Your task to perform on an android device: Open calendar and show me the third week of next month Image 0: 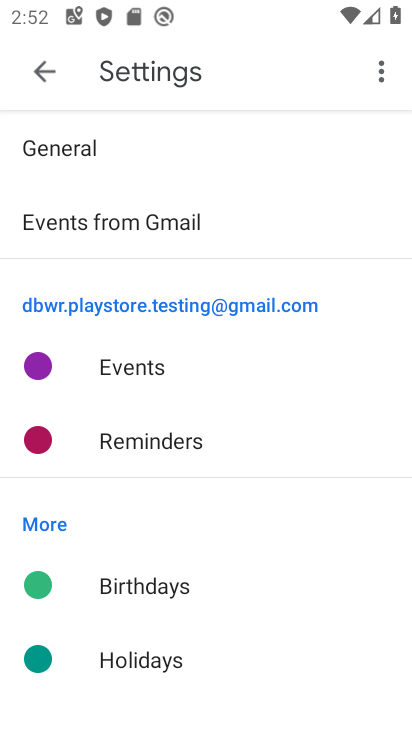
Step 0: press back button
Your task to perform on an android device: Open calendar and show me the third week of next month Image 1: 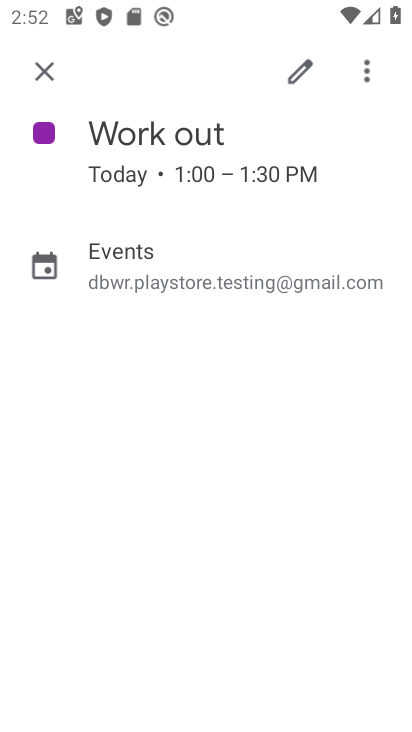
Step 1: click (42, 65)
Your task to perform on an android device: Open calendar and show me the third week of next month Image 2: 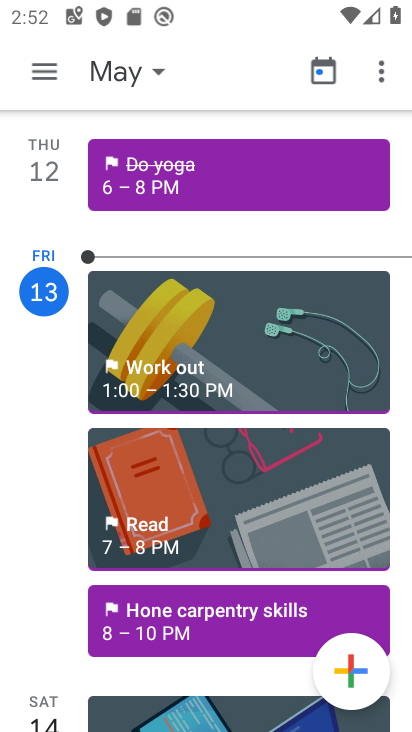
Step 2: click (144, 65)
Your task to perform on an android device: Open calendar and show me the third week of next month Image 3: 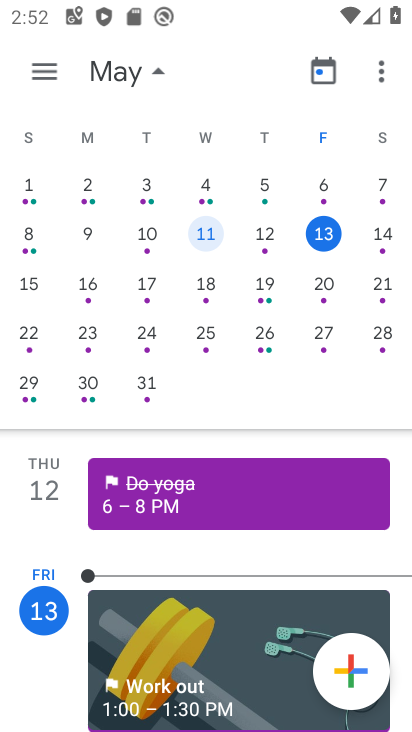
Step 3: drag from (392, 290) to (17, 274)
Your task to perform on an android device: Open calendar and show me the third week of next month Image 4: 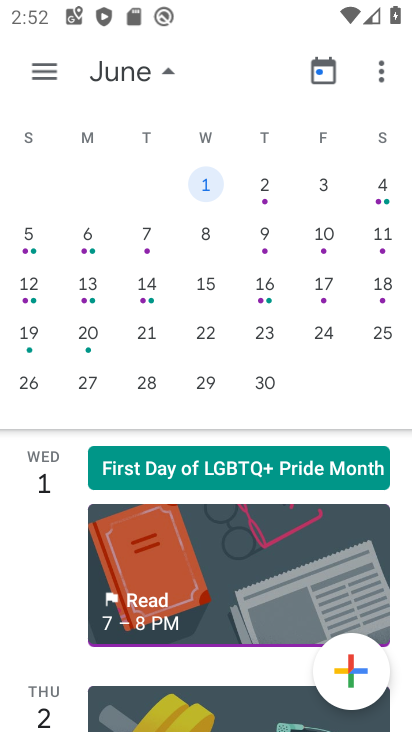
Step 4: click (83, 283)
Your task to perform on an android device: Open calendar and show me the third week of next month Image 5: 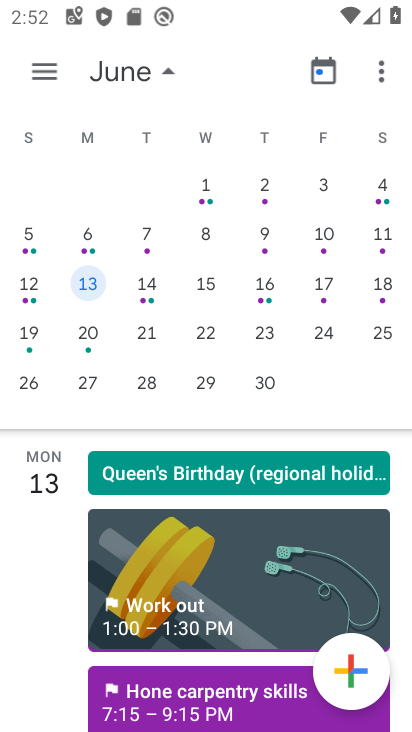
Step 5: task complete